Your task to perform on an android device: turn on location history Image 0: 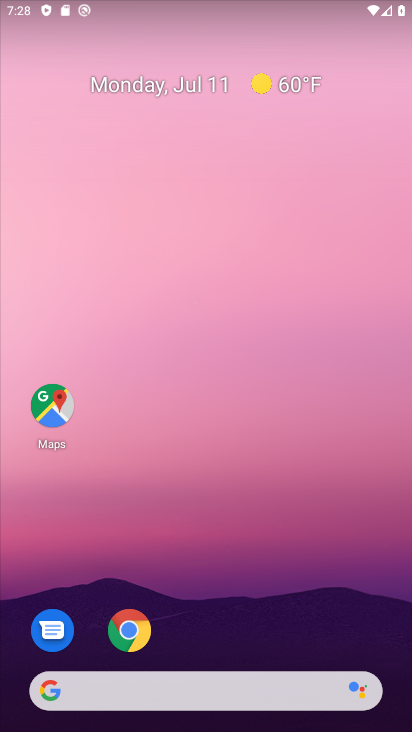
Step 0: click (50, 407)
Your task to perform on an android device: turn on location history Image 1: 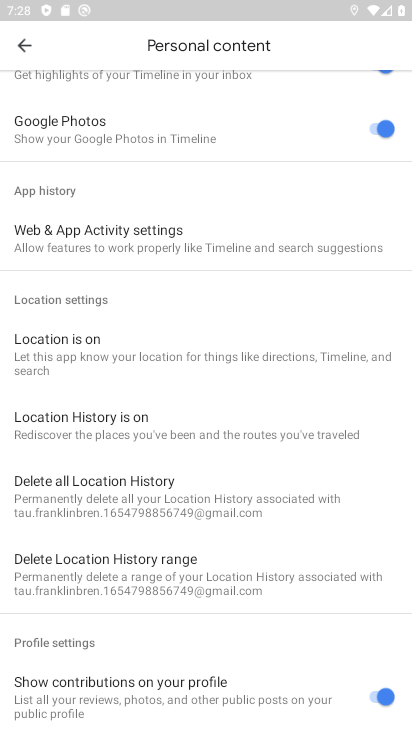
Step 1: task complete